Your task to perform on an android device: set the timer Image 0: 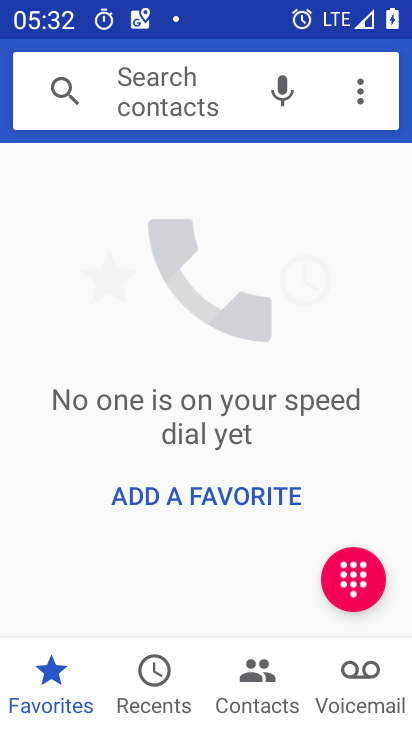
Step 0: press home button
Your task to perform on an android device: set the timer Image 1: 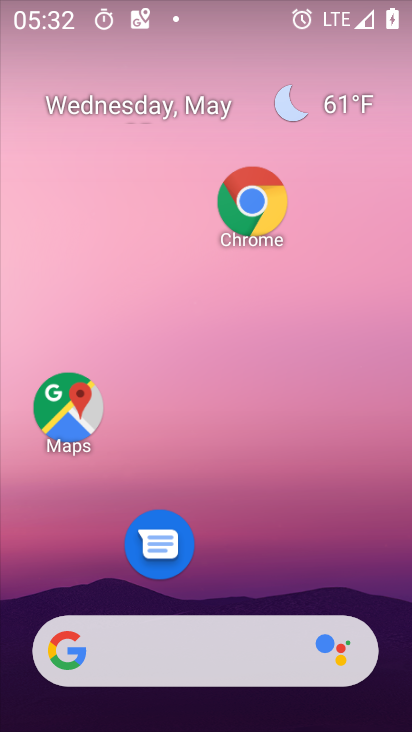
Step 1: drag from (177, 617) to (177, 177)
Your task to perform on an android device: set the timer Image 2: 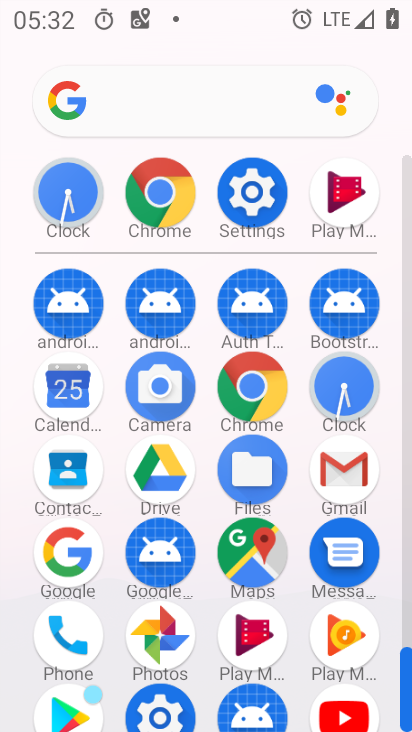
Step 2: click (346, 387)
Your task to perform on an android device: set the timer Image 3: 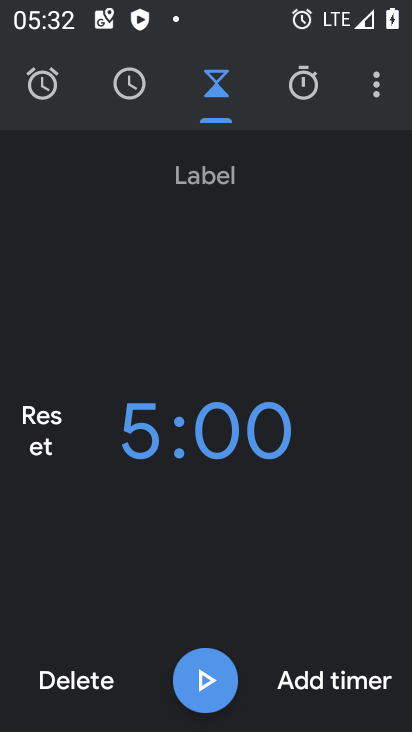
Step 3: click (200, 680)
Your task to perform on an android device: set the timer Image 4: 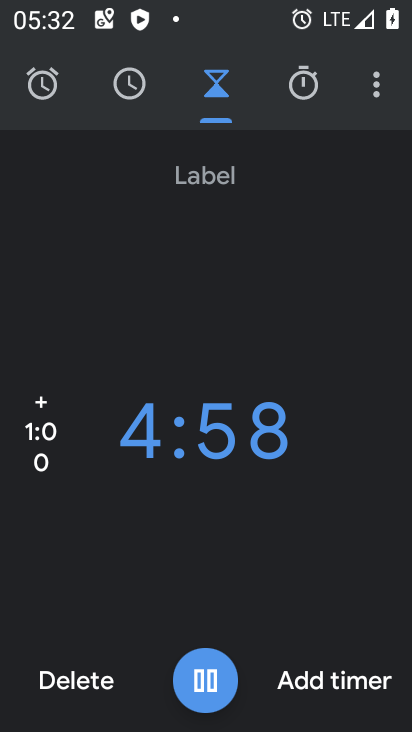
Step 4: task complete